Your task to perform on an android device: refresh tabs in the chrome app Image 0: 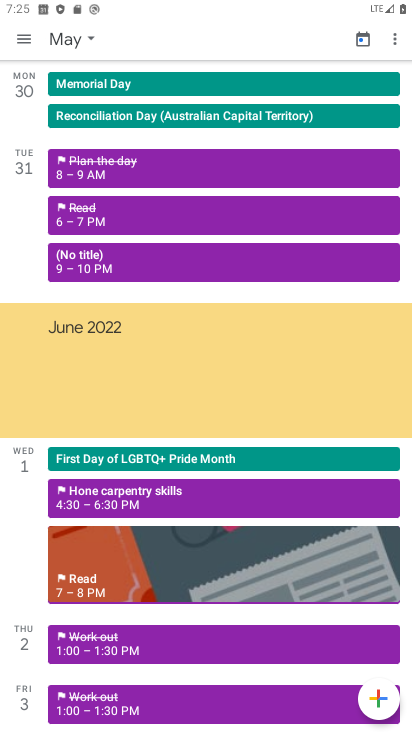
Step 0: press home button
Your task to perform on an android device: refresh tabs in the chrome app Image 1: 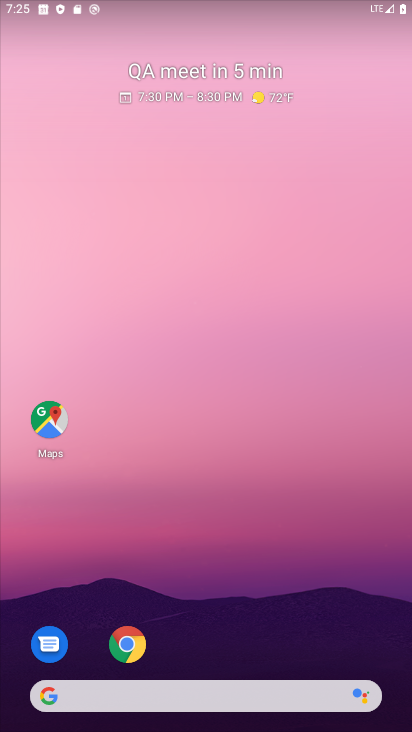
Step 1: drag from (243, 657) to (178, 218)
Your task to perform on an android device: refresh tabs in the chrome app Image 2: 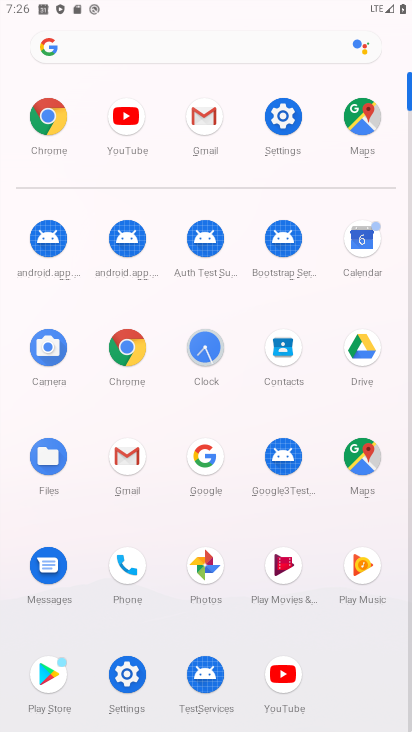
Step 2: click (143, 351)
Your task to perform on an android device: refresh tabs in the chrome app Image 3: 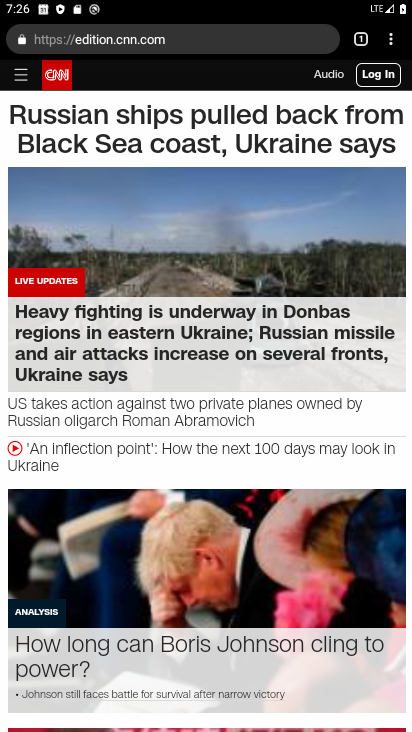
Step 3: click (389, 41)
Your task to perform on an android device: refresh tabs in the chrome app Image 4: 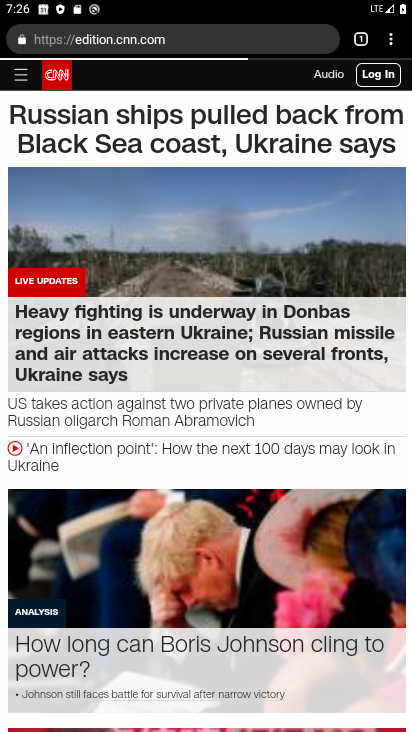
Step 4: task complete